Your task to perform on an android device: Show me popular videos on Youtube Image 0: 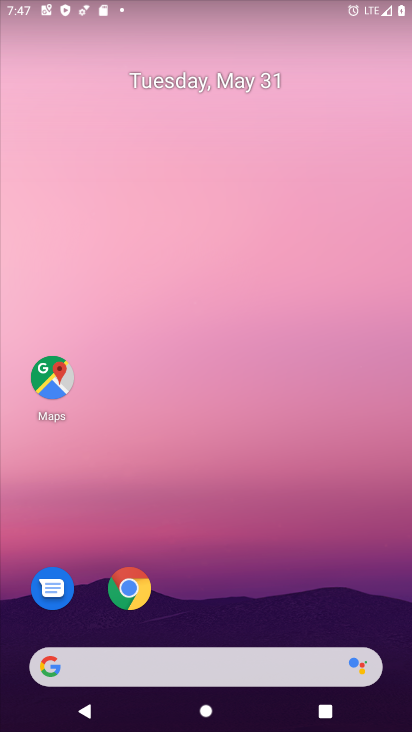
Step 0: drag from (235, 639) to (318, 55)
Your task to perform on an android device: Show me popular videos on Youtube Image 1: 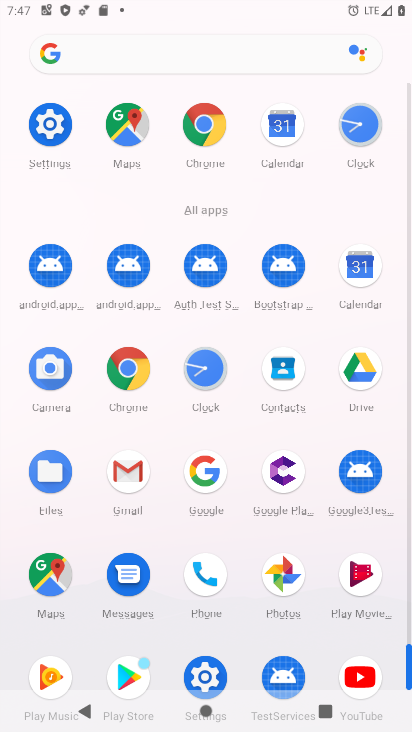
Step 1: click (353, 677)
Your task to perform on an android device: Show me popular videos on Youtube Image 2: 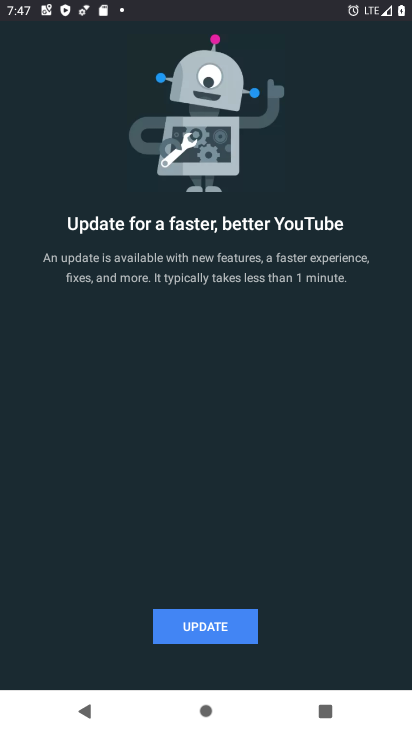
Step 2: click (210, 627)
Your task to perform on an android device: Show me popular videos on Youtube Image 3: 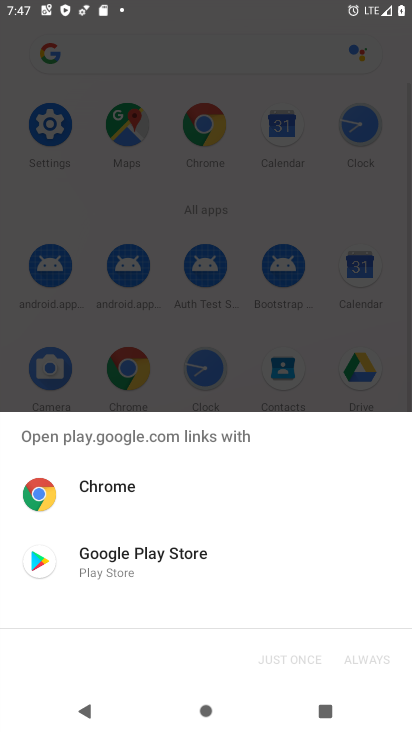
Step 3: click (122, 550)
Your task to perform on an android device: Show me popular videos on Youtube Image 4: 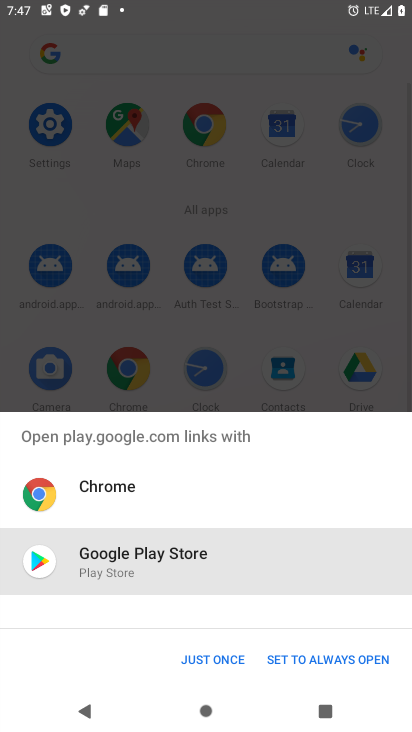
Step 4: click (211, 655)
Your task to perform on an android device: Show me popular videos on Youtube Image 5: 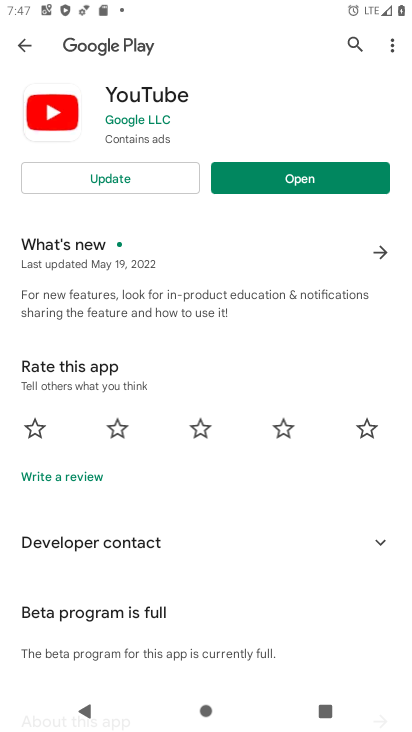
Step 5: click (140, 177)
Your task to perform on an android device: Show me popular videos on Youtube Image 6: 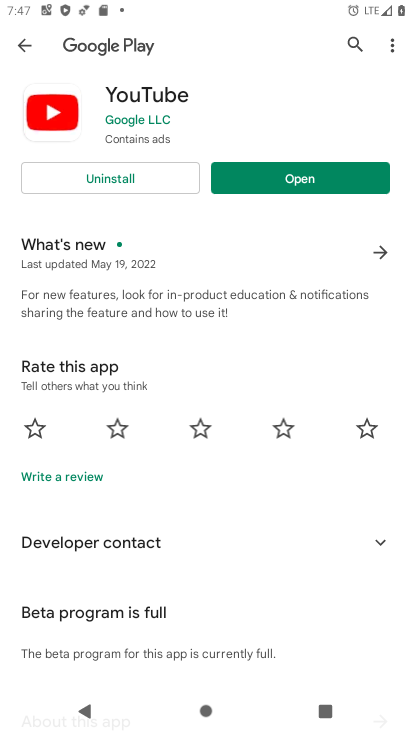
Step 6: click (320, 185)
Your task to perform on an android device: Show me popular videos on Youtube Image 7: 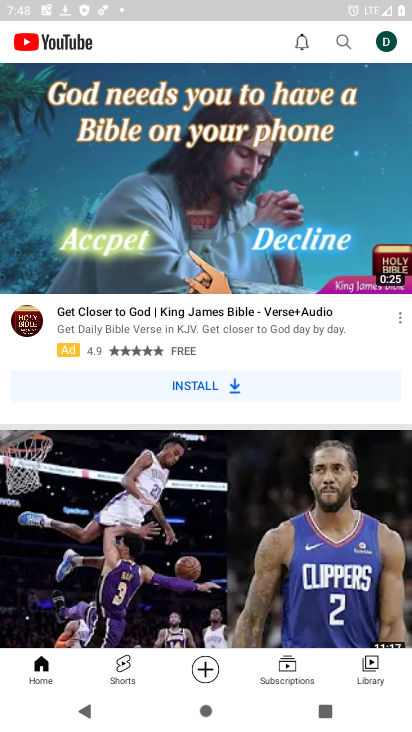
Step 7: drag from (73, 101) to (94, 364)
Your task to perform on an android device: Show me popular videos on Youtube Image 8: 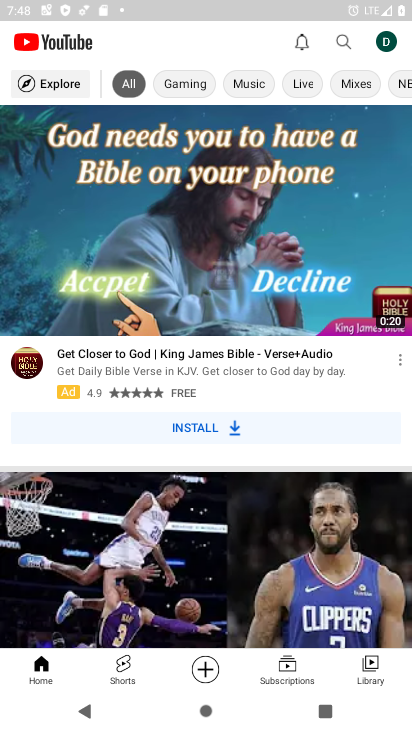
Step 8: click (57, 72)
Your task to perform on an android device: Show me popular videos on Youtube Image 9: 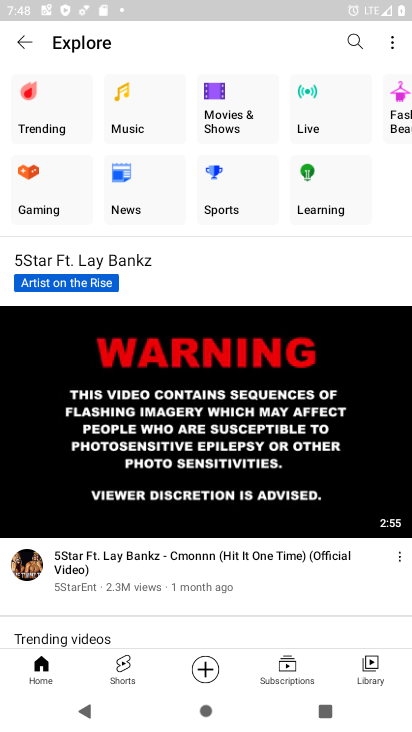
Step 9: click (62, 99)
Your task to perform on an android device: Show me popular videos on Youtube Image 10: 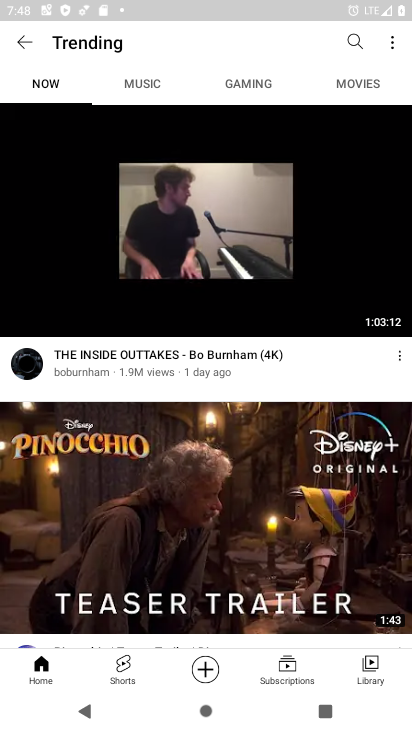
Step 10: task complete